Your task to perform on an android device: open app "Adobe Express: Graphic Design" Image 0: 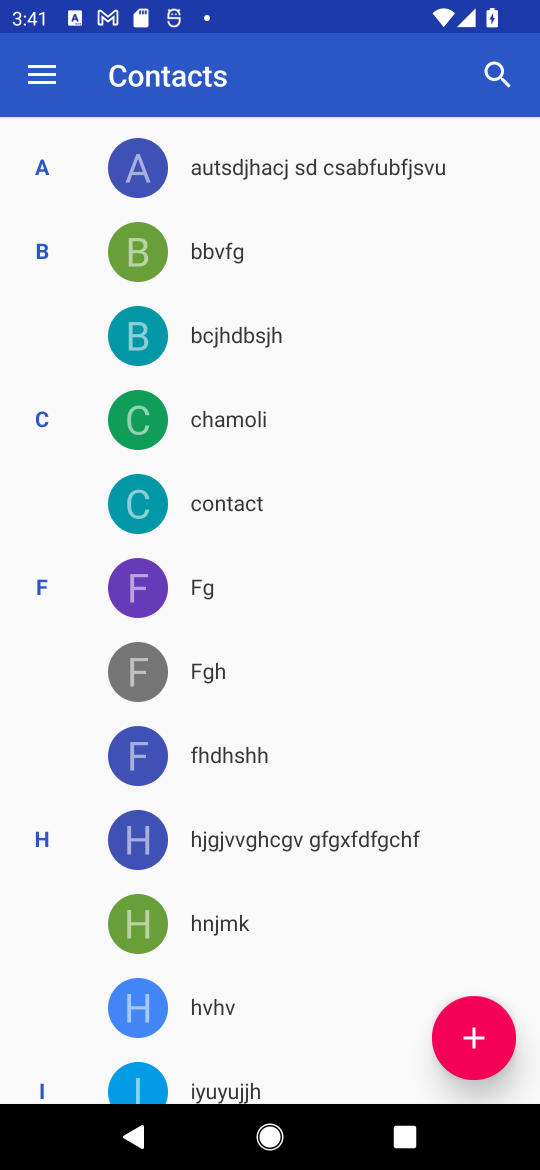
Step 0: press home button
Your task to perform on an android device: open app "Adobe Express: Graphic Design" Image 1: 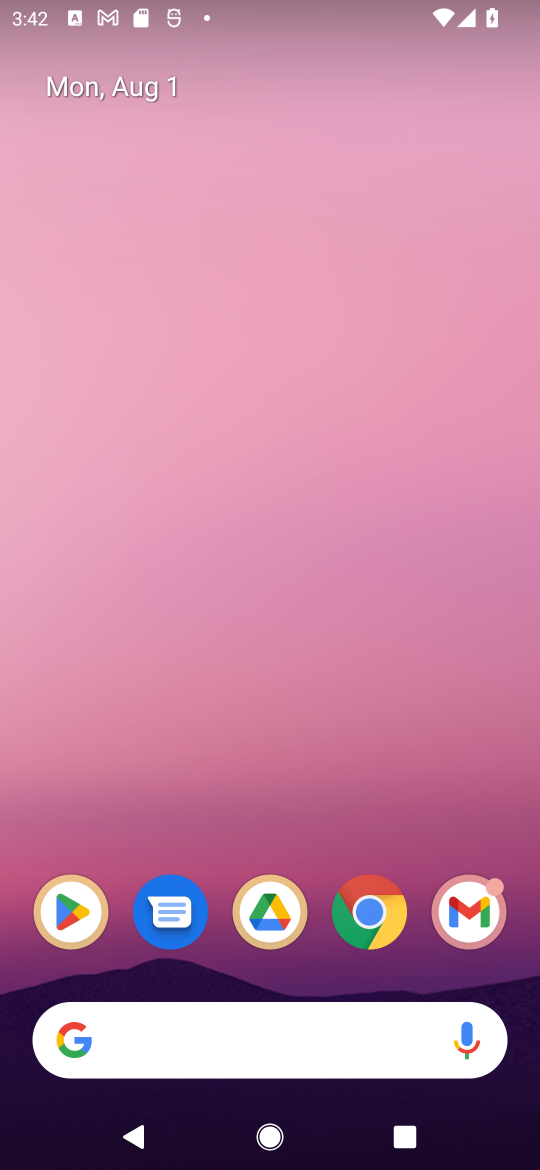
Step 1: click (67, 917)
Your task to perform on an android device: open app "Adobe Express: Graphic Design" Image 2: 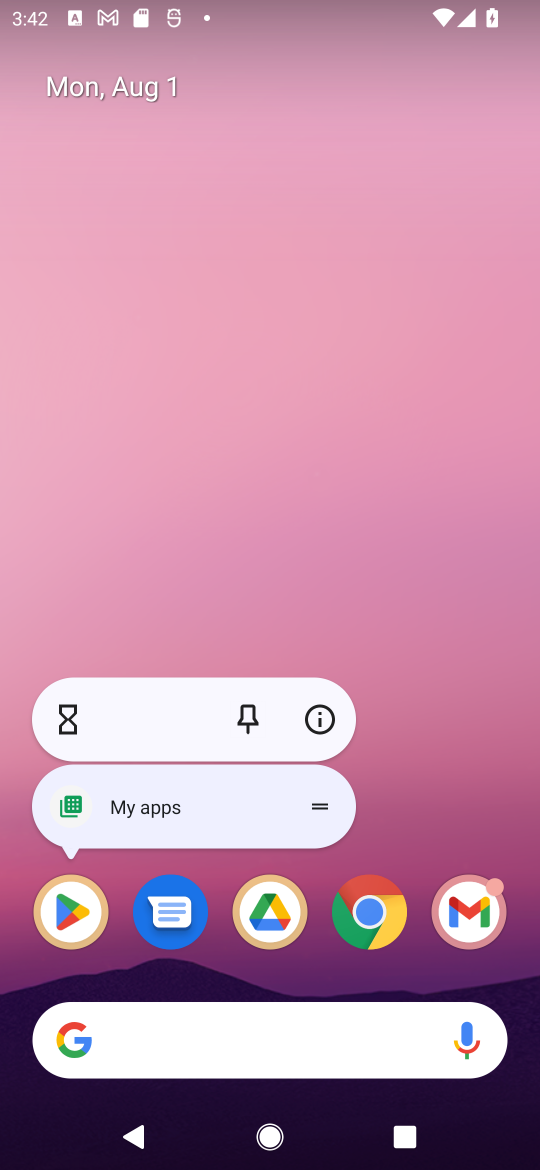
Step 2: click (67, 917)
Your task to perform on an android device: open app "Adobe Express: Graphic Design" Image 3: 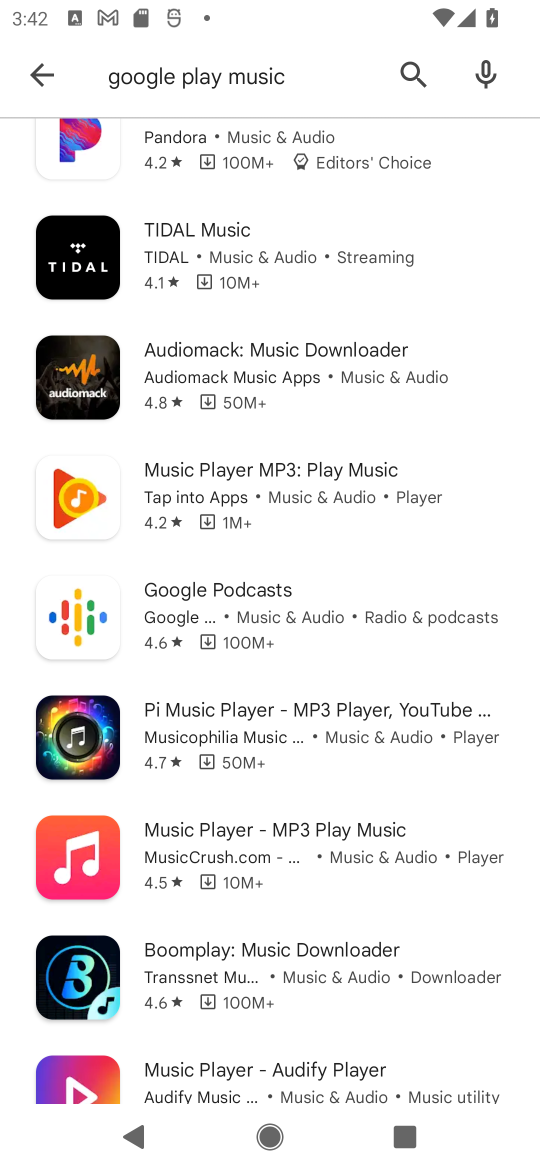
Step 3: click (412, 54)
Your task to perform on an android device: open app "Adobe Express: Graphic Design" Image 4: 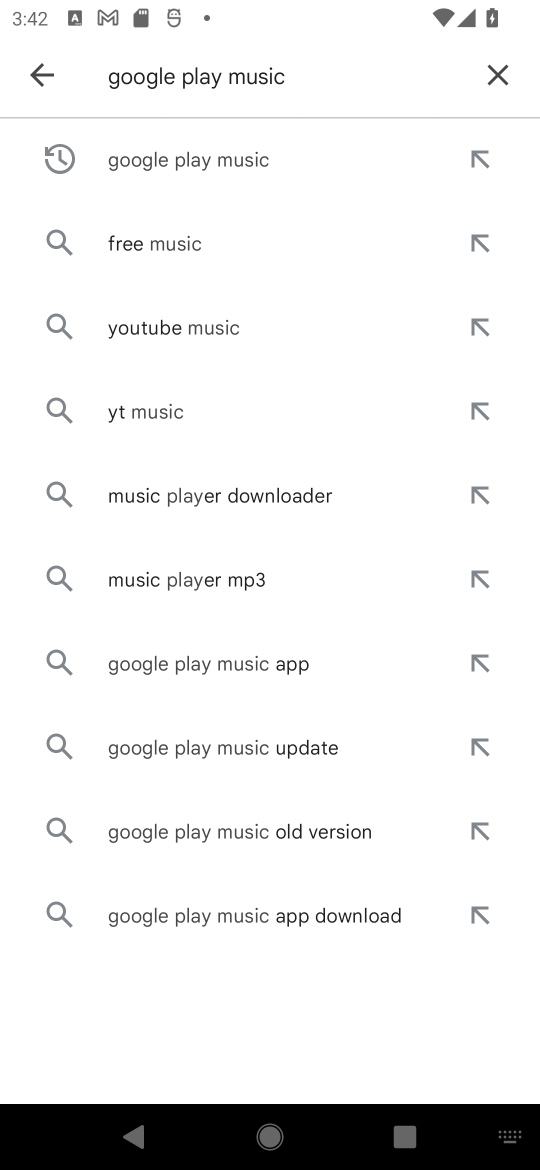
Step 4: click (498, 82)
Your task to perform on an android device: open app "Adobe Express: Graphic Design" Image 5: 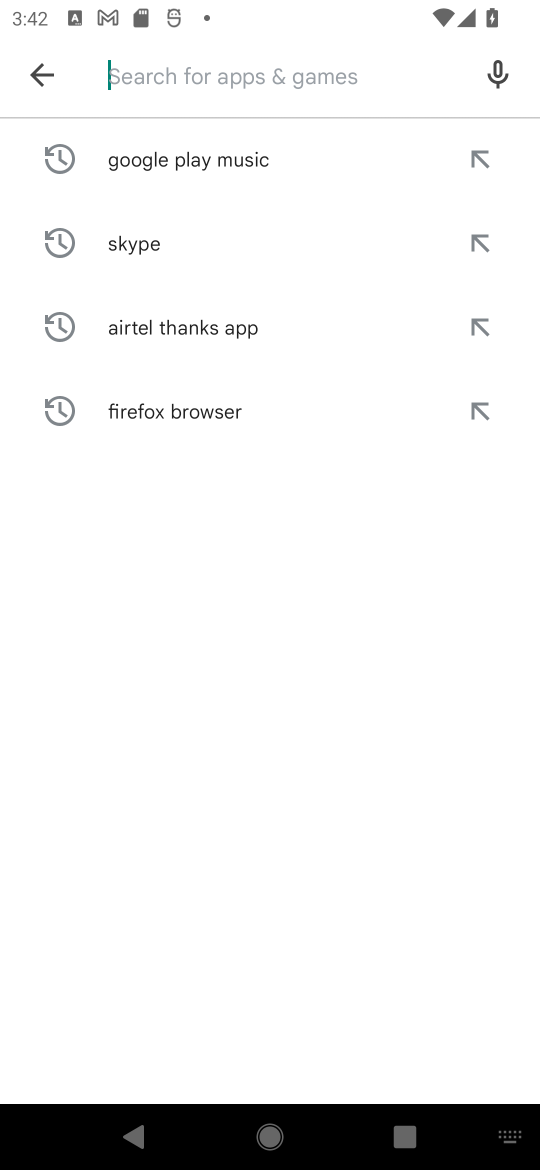
Step 5: type "Adobe Express: Graphic Design"
Your task to perform on an android device: open app "Adobe Express: Graphic Design" Image 6: 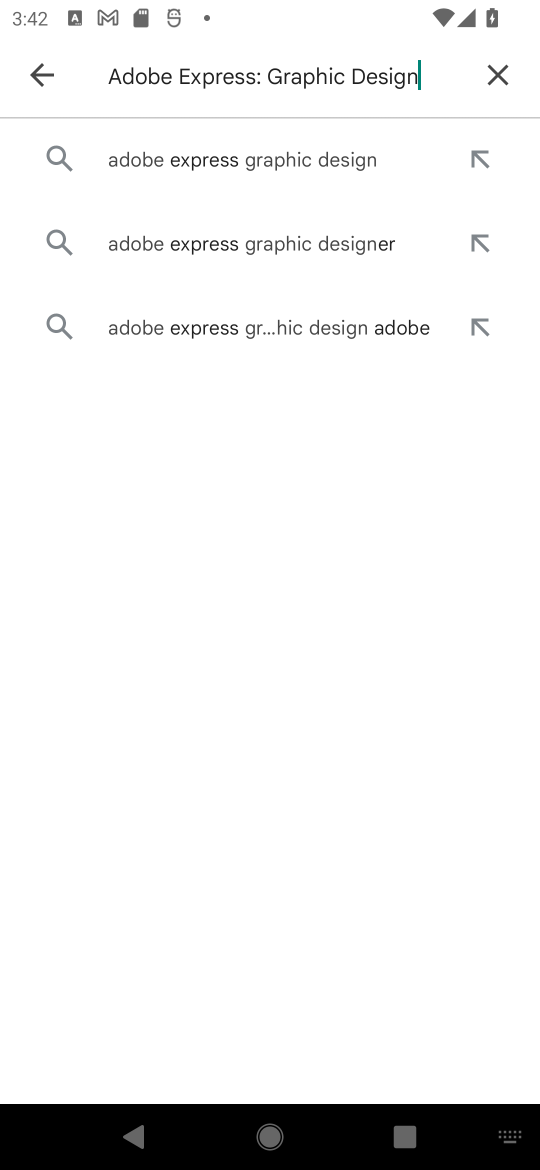
Step 6: click (197, 165)
Your task to perform on an android device: open app "Adobe Express: Graphic Design" Image 7: 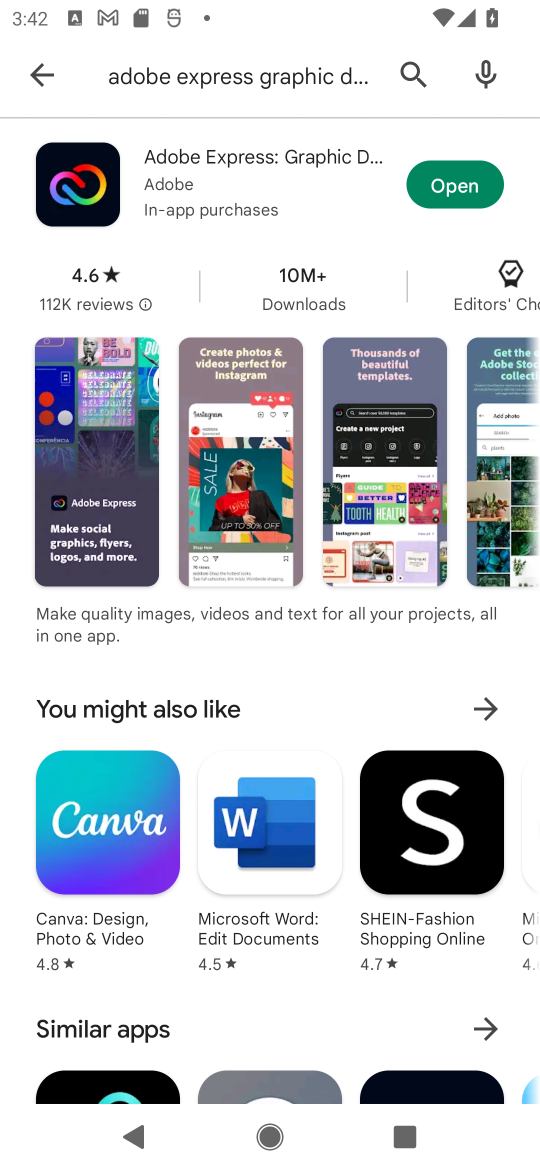
Step 7: click (454, 193)
Your task to perform on an android device: open app "Adobe Express: Graphic Design" Image 8: 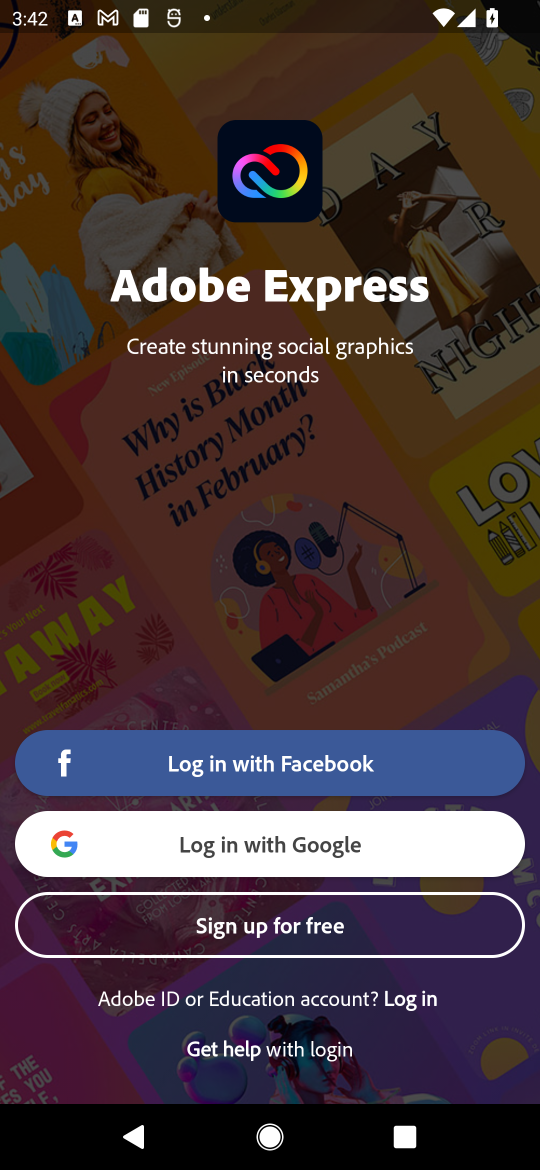
Step 8: task complete